Your task to perform on an android device: Go to network settings Image 0: 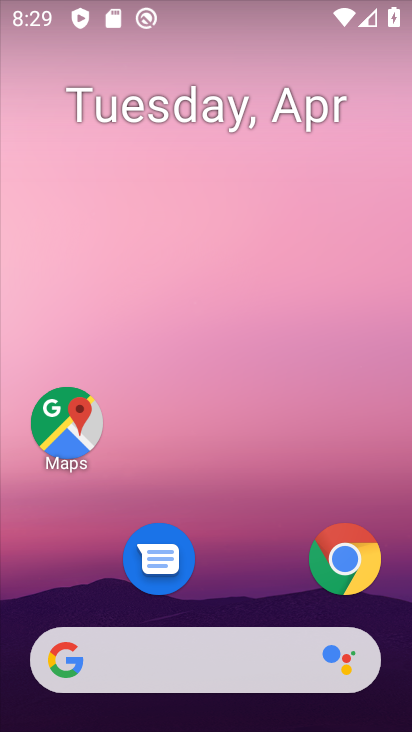
Step 0: drag from (249, 676) to (253, 95)
Your task to perform on an android device: Go to network settings Image 1: 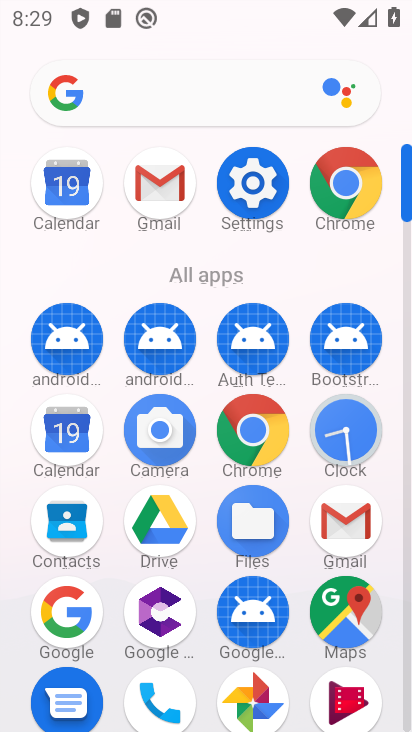
Step 1: drag from (198, 553) to (193, 351)
Your task to perform on an android device: Go to network settings Image 2: 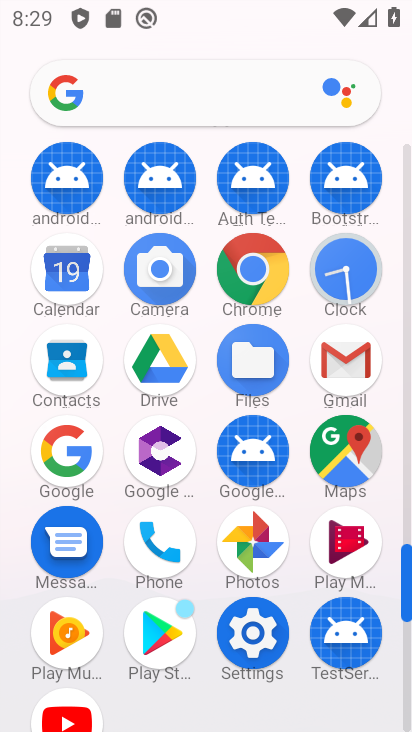
Step 2: click (252, 630)
Your task to perform on an android device: Go to network settings Image 3: 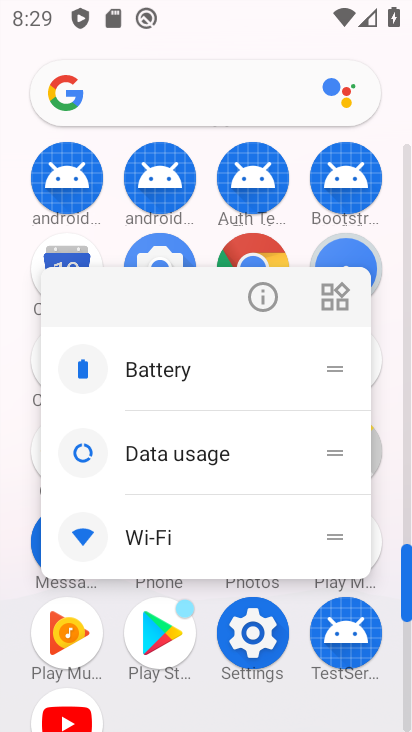
Step 3: click (252, 630)
Your task to perform on an android device: Go to network settings Image 4: 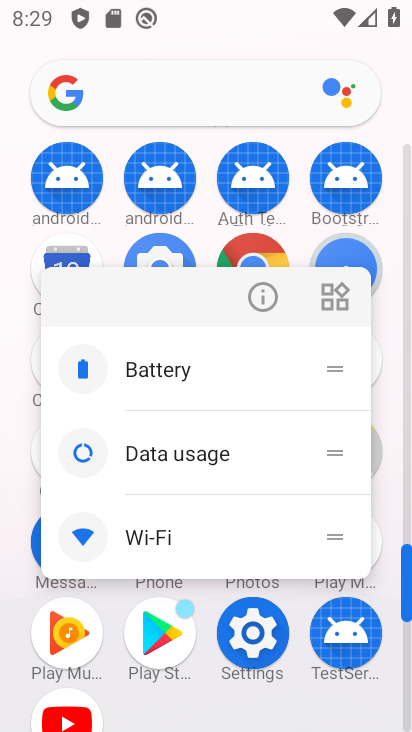
Step 4: click (252, 630)
Your task to perform on an android device: Go to network settings Image 5: 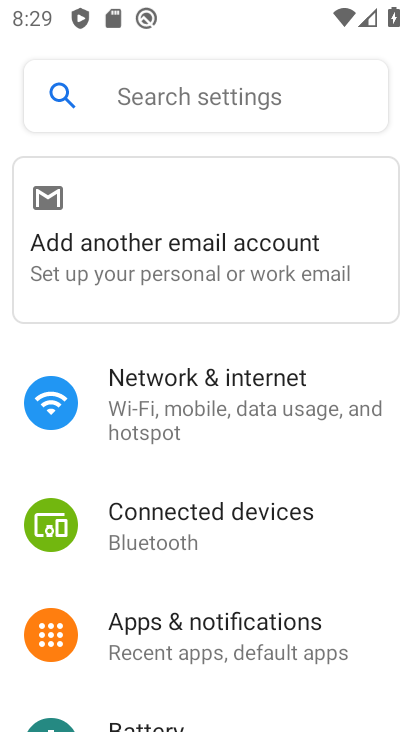
Step 5: click (203, 377)
Your task to perform on an android device: Go to network settings Image 6: 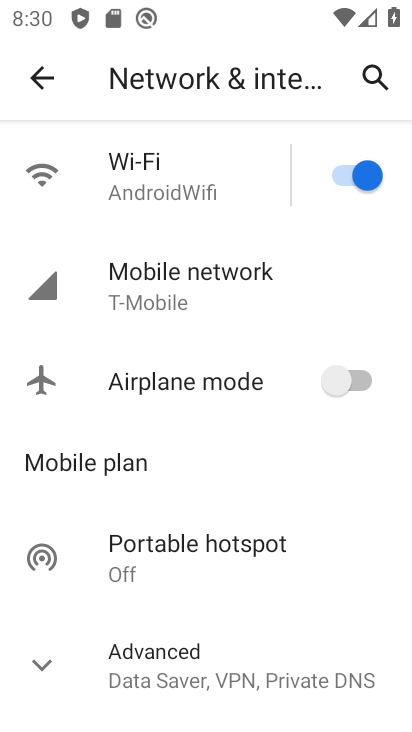
Step 6: task complete